Your task to perform on an android device: Check the news Image 0: 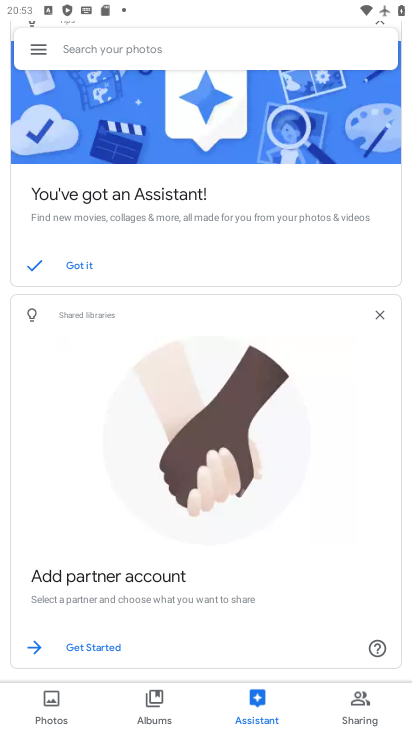
Step 0: press home button
Your task to perform on an android device: Check the news Image 1: 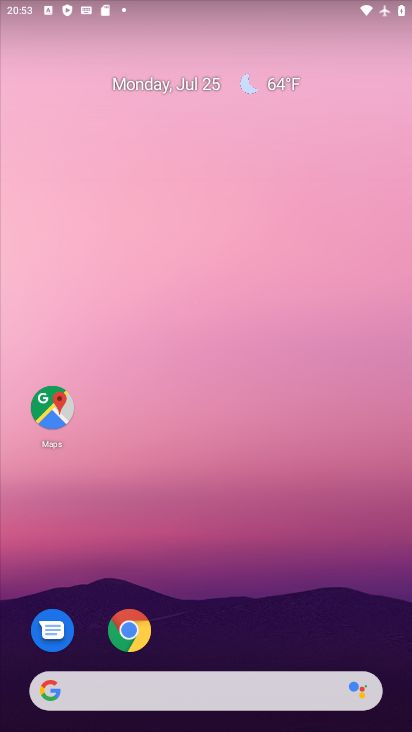
Step 1: task complete